Your task to perform on an android device: Open wifi settings Image 0: 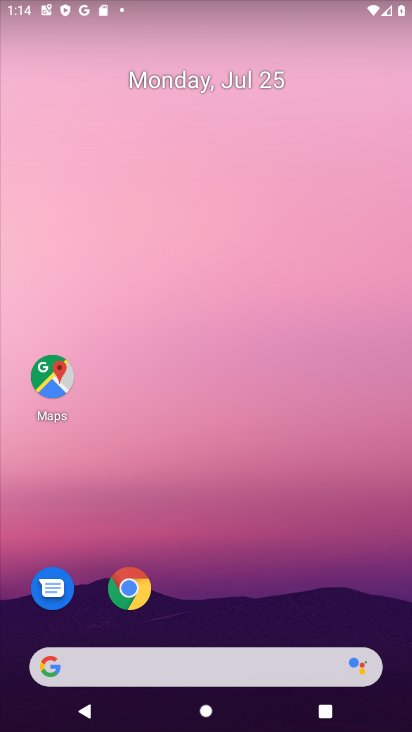
Step 0: drag from (200, 411) to (201, 13)
Your task to perform on an android device: Open wifi settings Image 1: 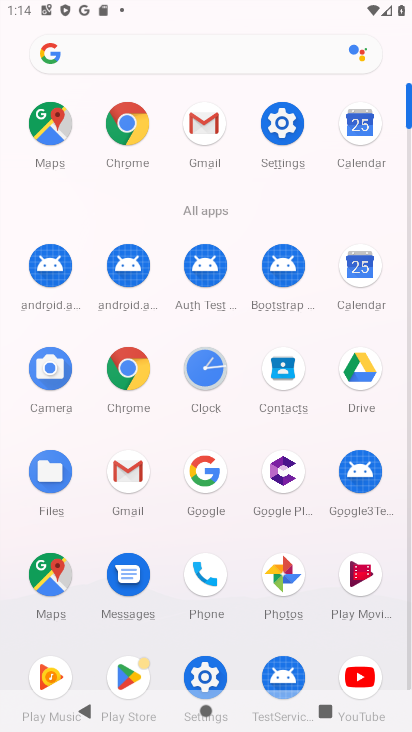
Step 1: click (280, 123)
Your task to perform on an android device: Open wifi settings Image 2: 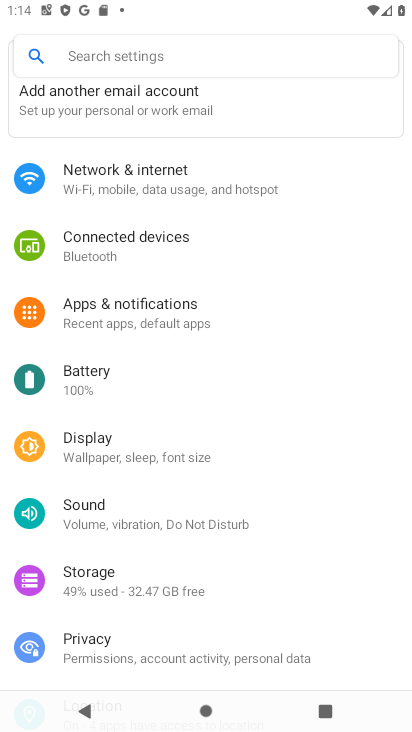
Step 2: click (159, 181)
Your task to perform on an android device: Open wifi settings Image 3: 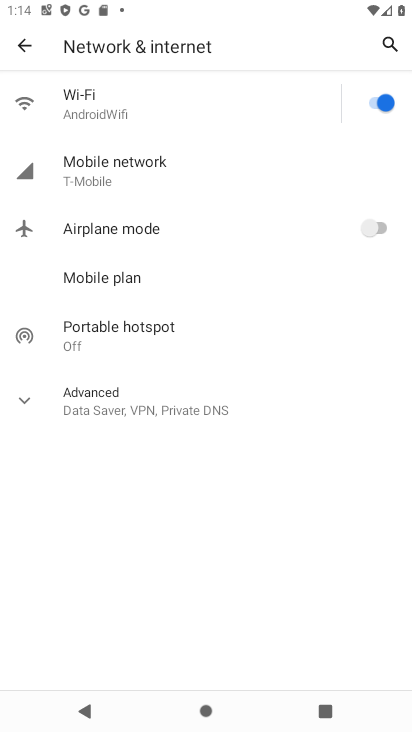
Step 3: click (155, 110)
Your task to perform on an android device: Open wifi settings Image 4: 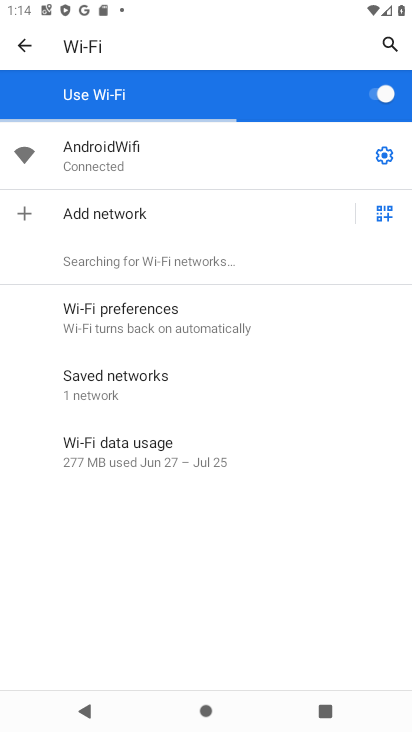
Step 4: task complete